Your task to perform on an android device: What is the recent news? Image 0: 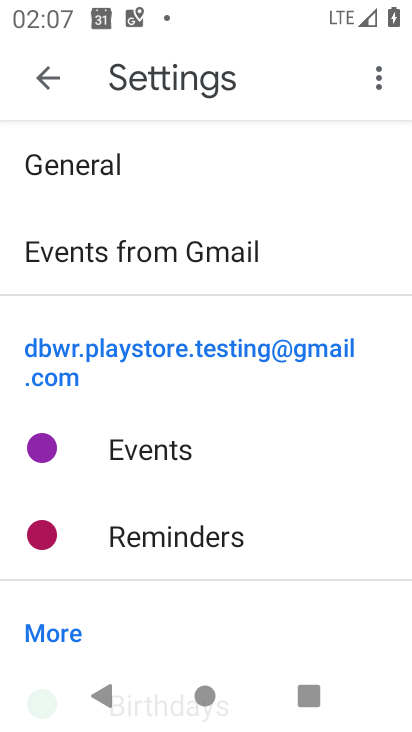
Step 0: click (207, 690)
Your task to perform on an android device: What is the recent news? Image 1: 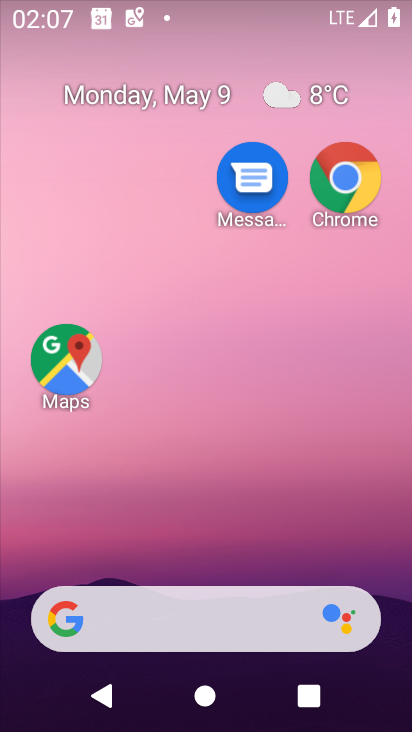
Step 1: press home button
Your task to perform on an android device: What is the recent news? Image 2: 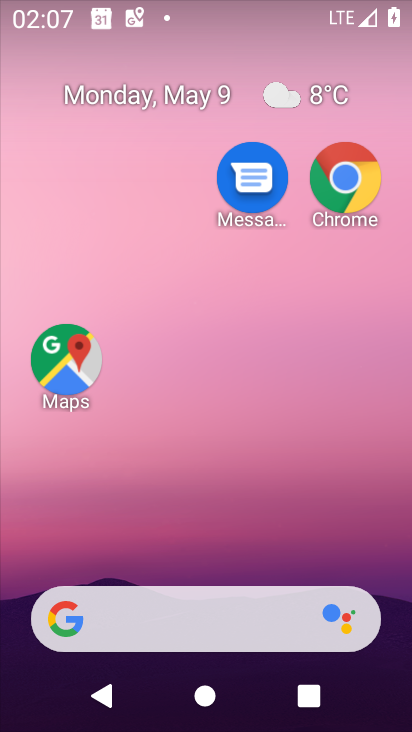
Step 2: click (236, 610)
Your task to perform on an android device: What is the recent news? Image 3: 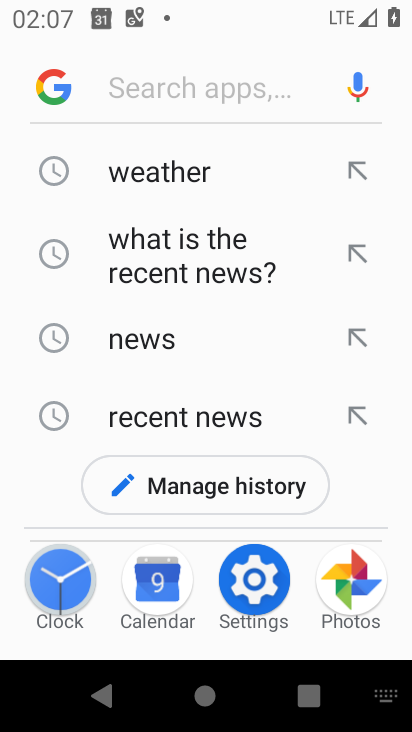
Step 3: click (188, 333)
Your task to perform on an android device: What is the recent news? Image 4: 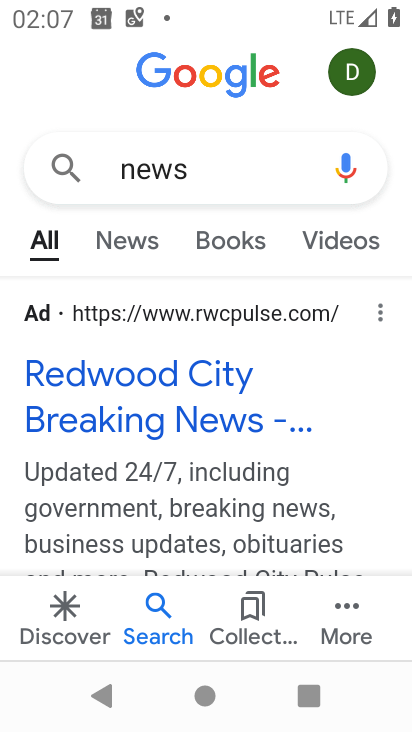
Step 4: task complete